Your task to perform on an android device: Search for sushi restaurants on Maps Image 0: 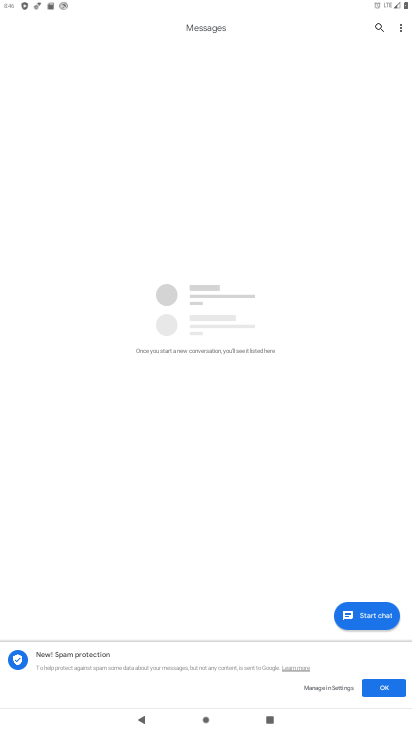
Step 0: press home button
Your task to perform on an android device: Search for sushi restaurants on Maps Image 1: 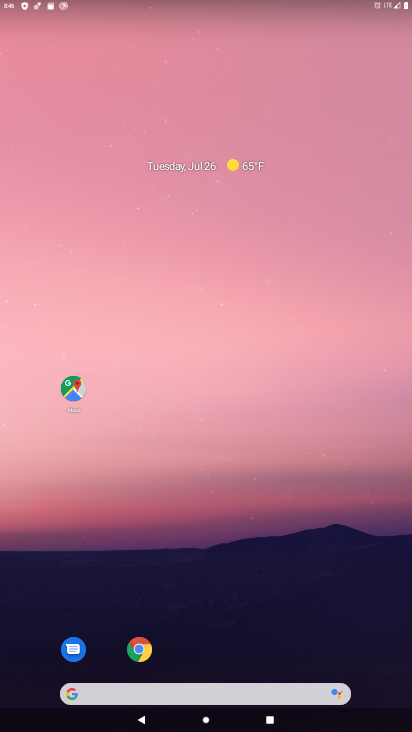
Step 1: click (70, 386)
Your task to perform on an android device: Search for sushi restaurants on Maps Image 2: 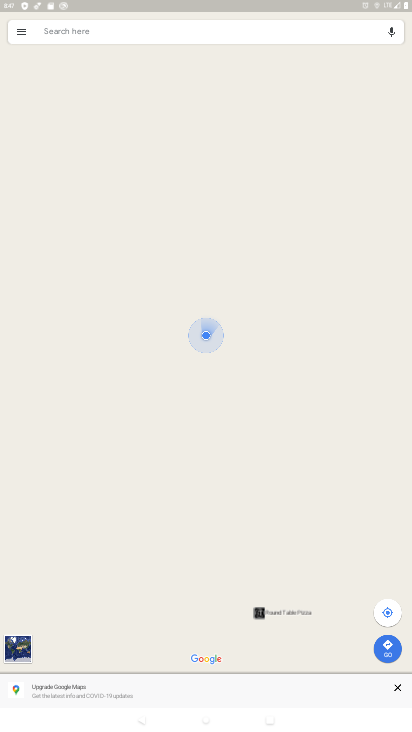
Step 2: click (147, 32)
Your task to perform on an android device: Search for sushi restaurants on Maps Image 3: 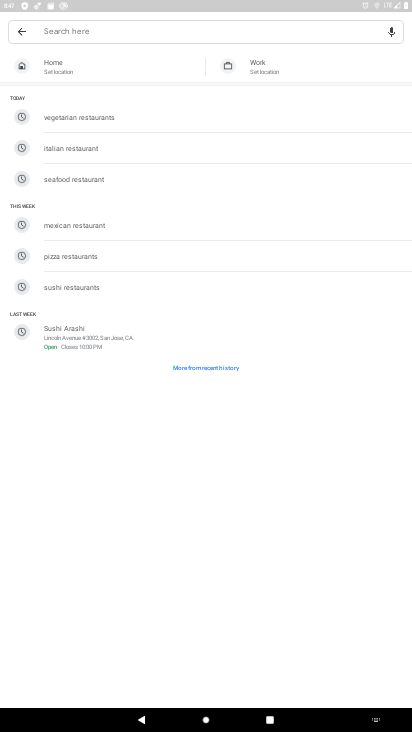
Step 3: type "sushi restaurants"
Your task to perform on an android device: Search for sushi restaurants on Maps Image 4: 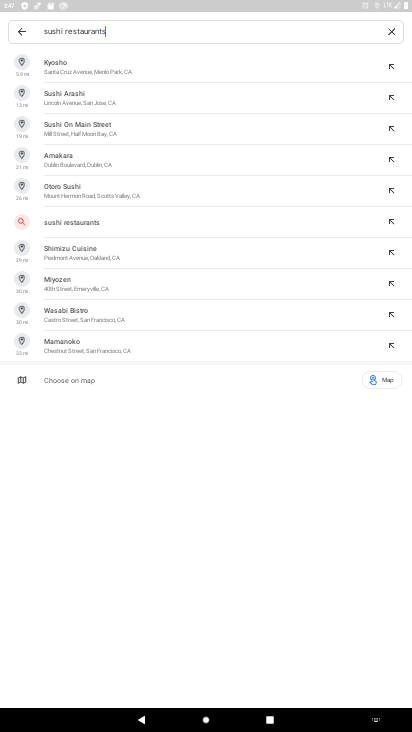
Step 4: click (83, 225)
Your task to perform on an android device: Search for sushi restaurants on Maps Image 5: 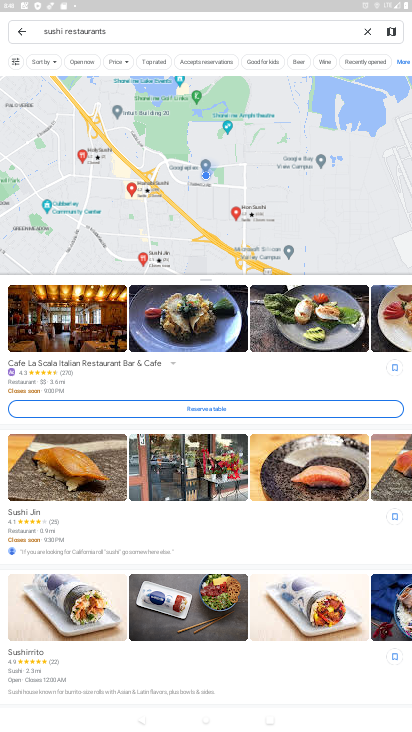
Step 5: task complete